Your task to perform on an android device: change keyboard looks Image 0: 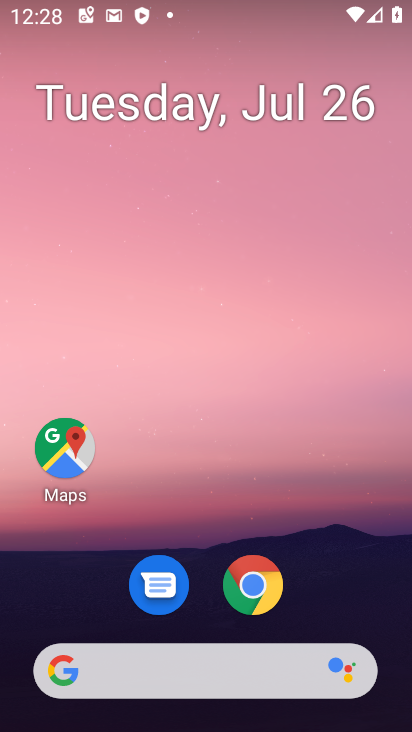
Step 0: drag from (181, 601) to (293, 81)
Your task to perform on an android device: change keyboard looks Image 1: 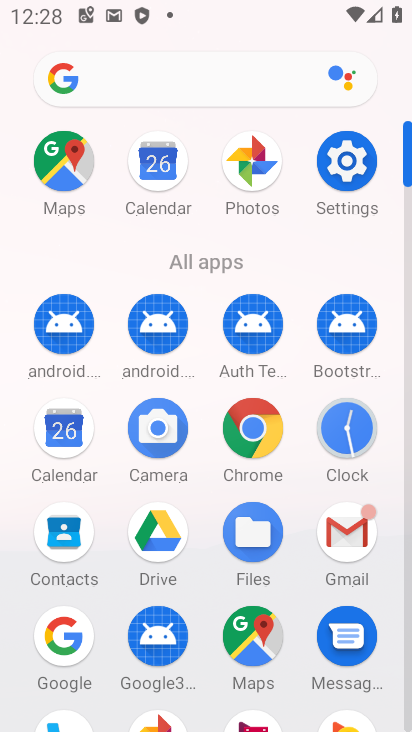
Step 1: click (357, 151)
Your task to perform on an android device: change keyboard looks Image 2: 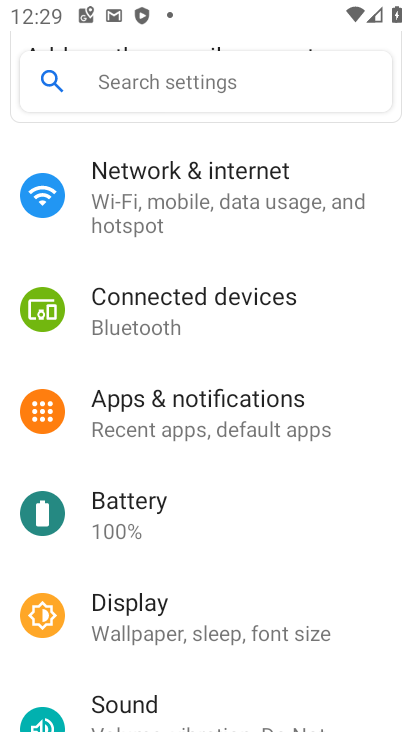
Step 2: drag from (234, 598) to (329, 137)
Your task to perform on an android device: change keyboard looks Image 3: 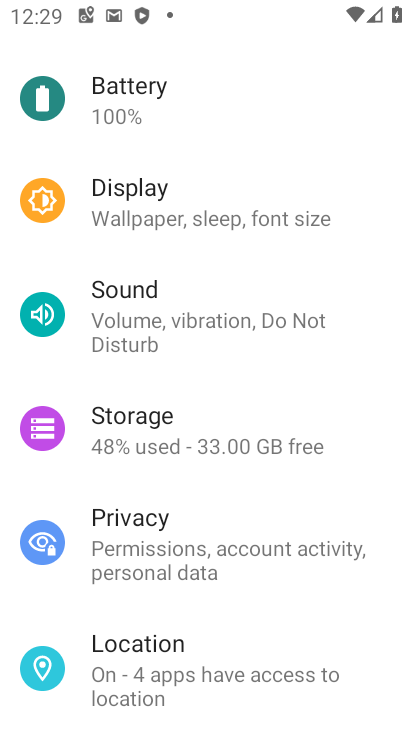
Step 3: drag from (283, 636) to (335, 127)
Your task to perform on an android device: change keyboard looks Image 4: 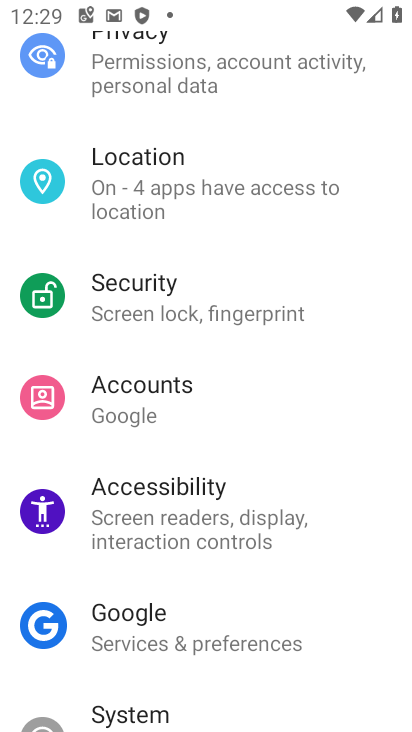
Step 4: drag from (199, 689) to (335, 84)
Your task to perform on an android device: change keyboard looks Image 5: 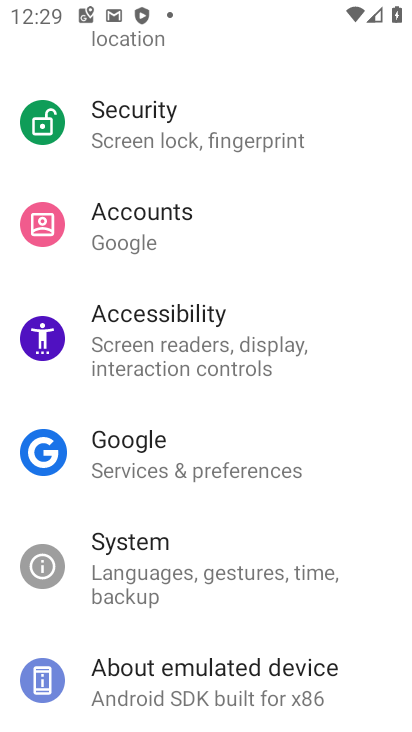
Step 5: click (154, 571)
Your task to perform on an android device: change keyboard looks Image 6: 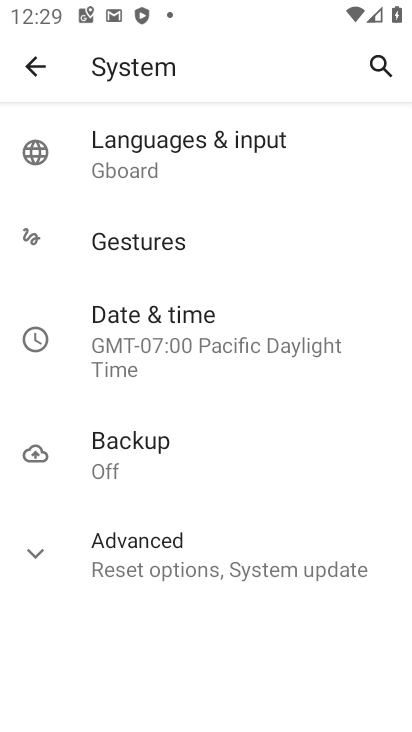
Step 6: click (146, 165)
Your task to perform on an android device: change keyboard looks Image 7: 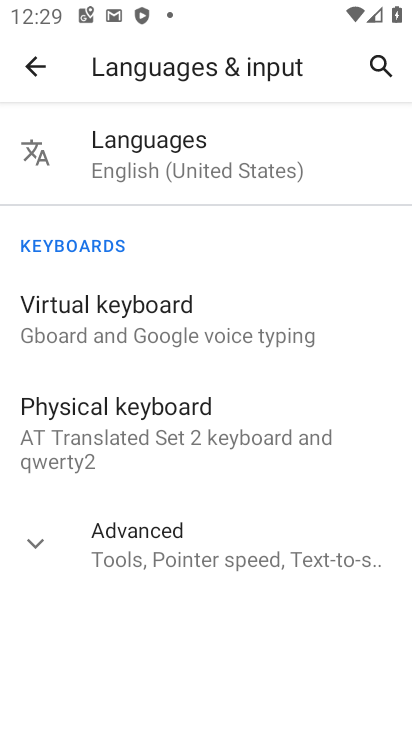
Step 7: click (122, 326)
Your task to perform on an android device: change keyboard looks Image 8: 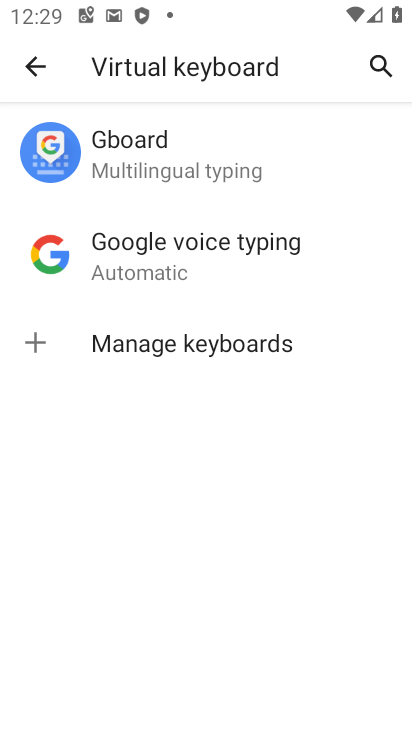
Step 8: click (145, 169)
Your task to perform on an android device: change keyboard looks Image 9: 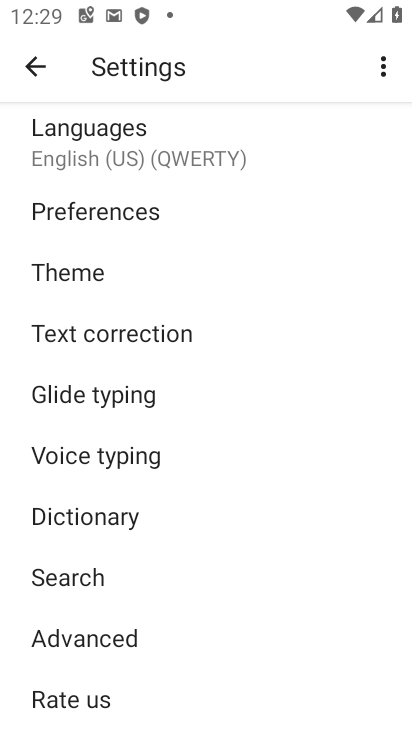
Step 9: click (97, 272)
Your task to perform on an android device: change keyboard looks Image 10: 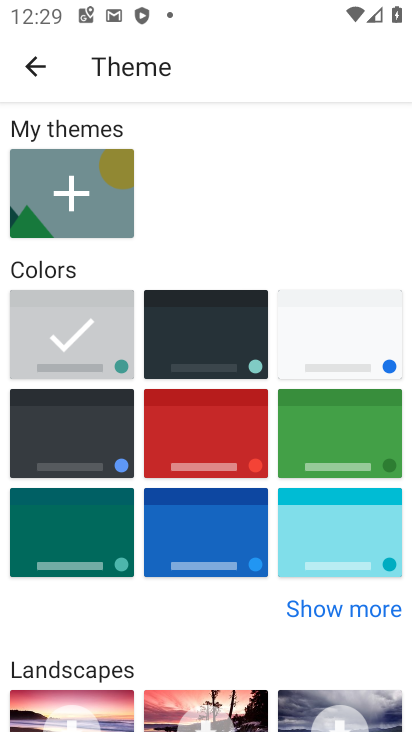
Step 10: click (79, 543)
Your task to perform on an android device: change keyboard looks Image 11: 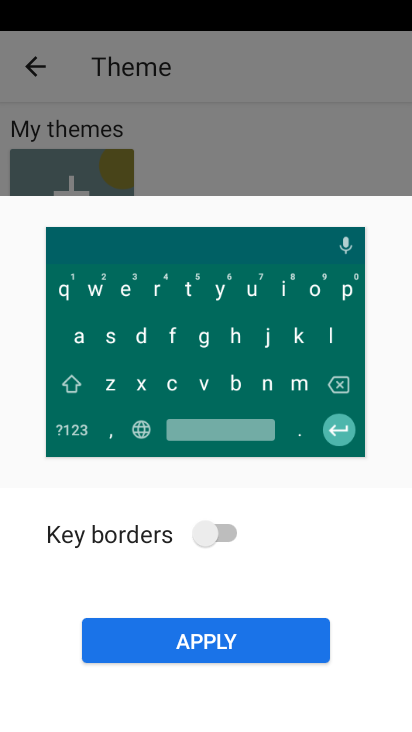
Step 11: click (217, 647)
Your task to perform on an android device: change keyboard looks Image 12: 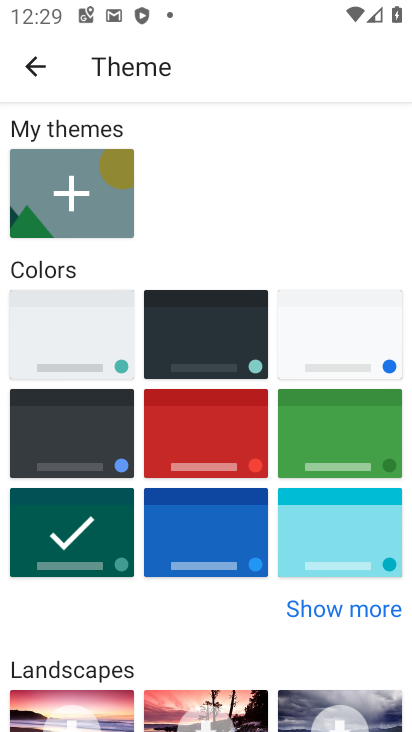
Step 12: task complete